Your task to perform on an android device: delete a single message in the gmail app Image 0: 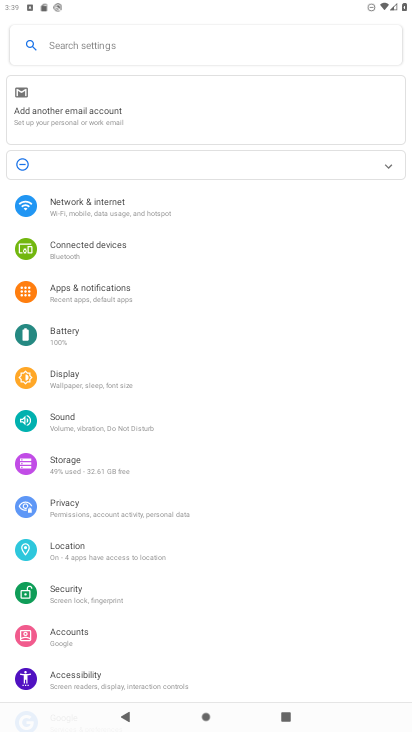
Step 0: press home button
Your task to perform on an android device: delete a single message in the gmail app Image 1: 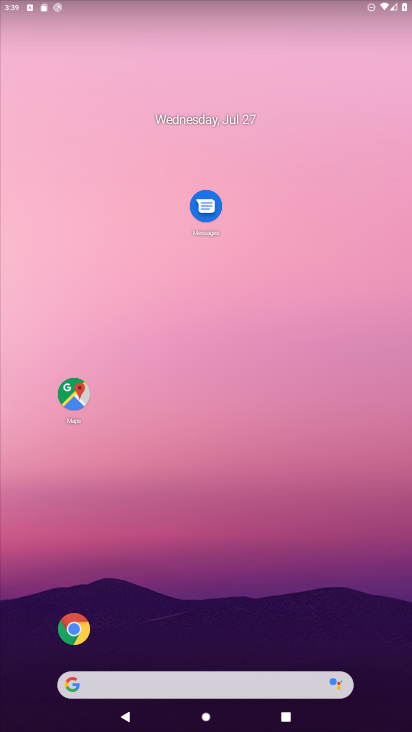
Step 1: drag from (135, 652) to (298, 126)
Your task to perform on an android device: delete a single message in the gmail app Image 2: 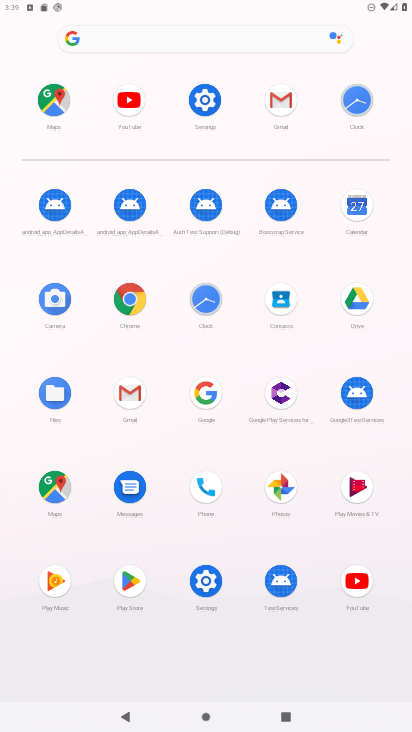
Step 2: click (283, 97)
Your task to perform on an android device: delete a single message in the gmail app Image 3: 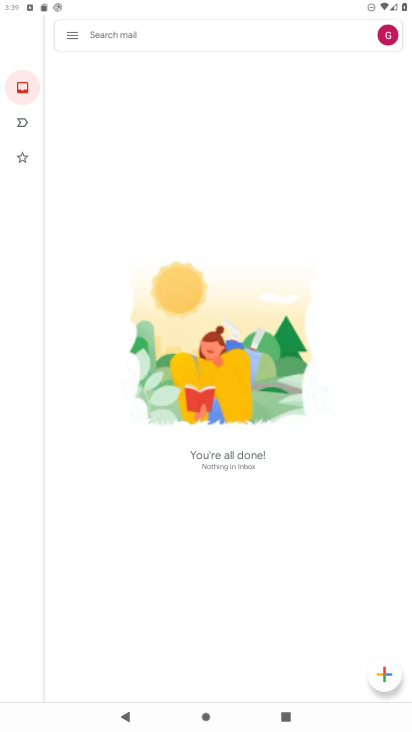
Step 3: task complete